Your task to perform on an android device: turn off priority inbox in the gmail app Image 0: 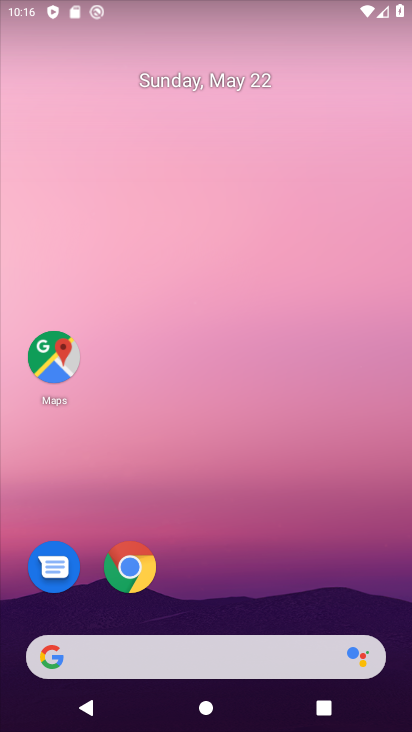
Step 0: drag from (400, 625) to (336, 52)
Your task to perform on an android device: turn off priority inbox in the gmail app Image 1: 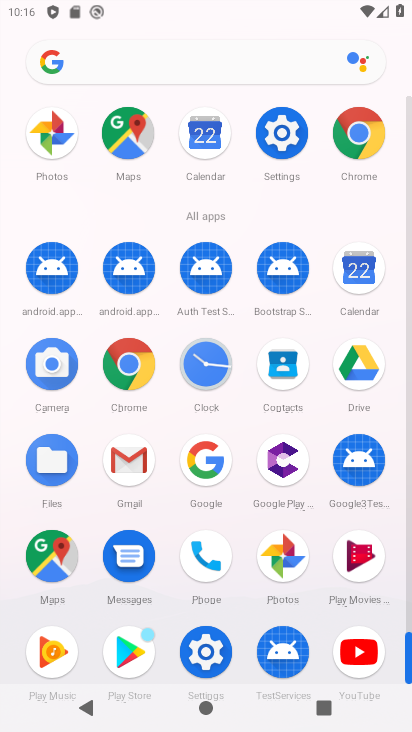
Step 1: click (409, 619)
Your task to perform on an android device: turn off priority inbox in the gmail app Image 2: 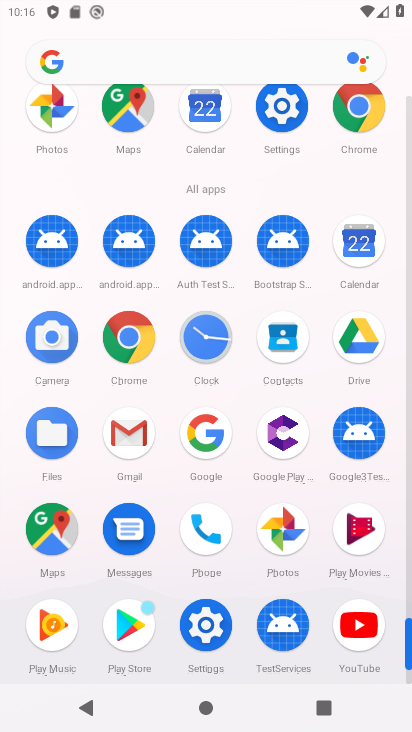
Step 2: click (128, 433)
Your task to perform on an android device: turn off priority inbox in the gmail app Image 3: 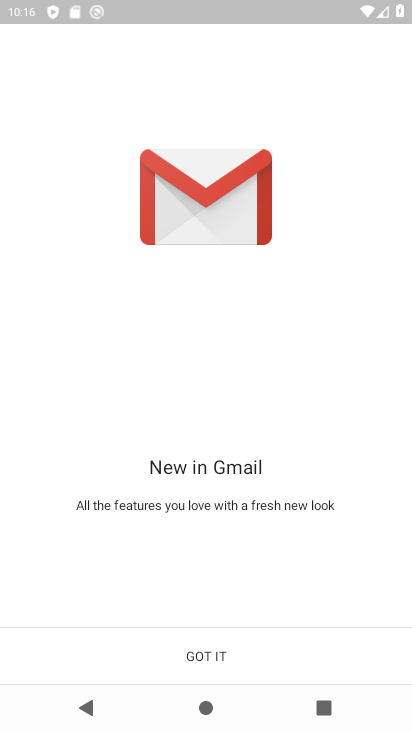
Step 3: click (194, 651)
Your task to perform on an android device: turn off priority inbox in the gmail app Image 4: 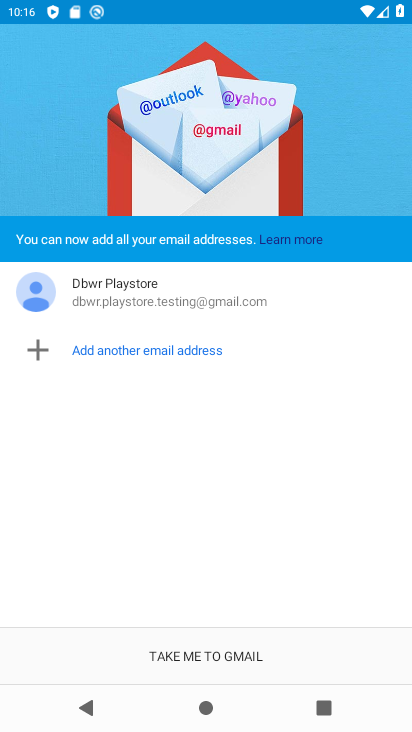
Step 4: click (194, 651)
Your task to perform on an android device: turn off priority inbox in the gmail app Image 5: 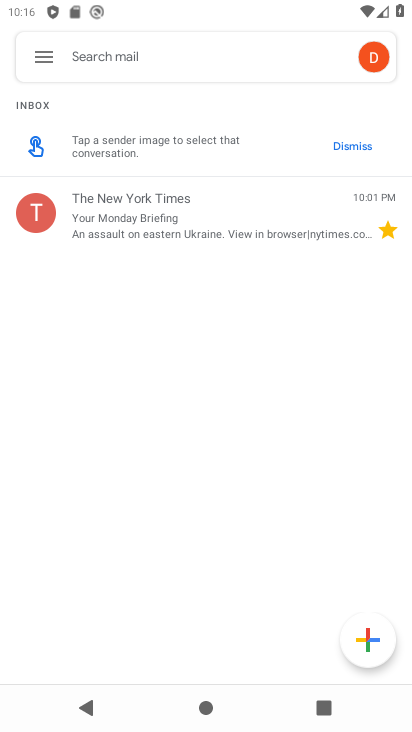
Step 5: click (46, 52)
Your task to perform on an android device: turn off priority inbox in the gmail app Image 6: 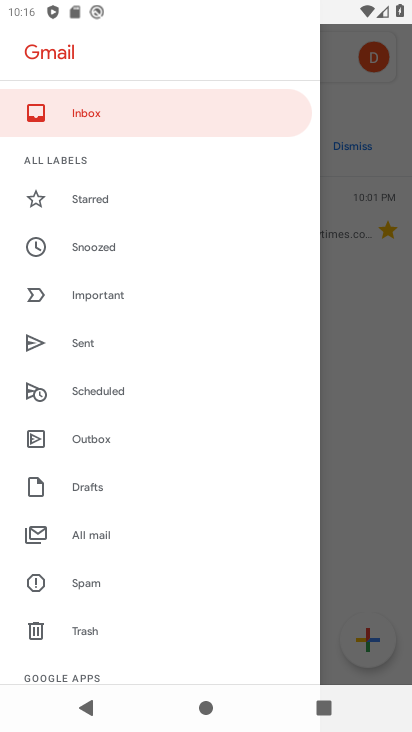
Step 6: drag from (188, 658) to (228, 211)
Your task to perform on an android device: turn off priority inbox in the gmail app Image 7: 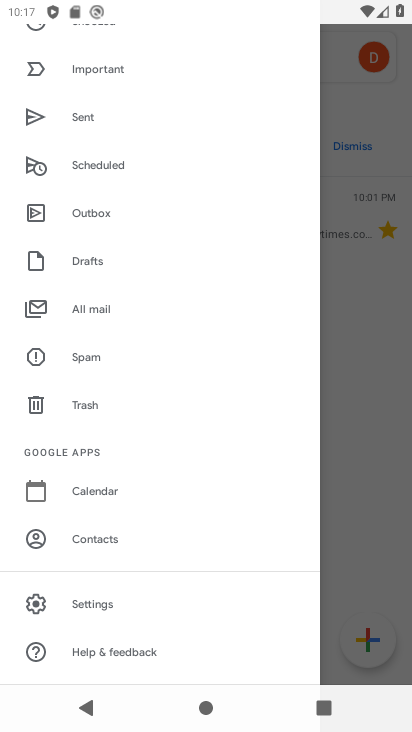
Step 7: click (90, 600)
Your task to perform on an android device: turn off priority inbox in the gmail app Image 8: 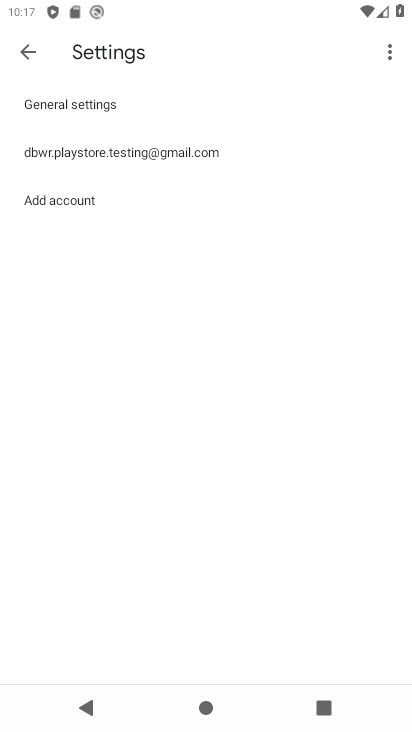
Step 8: click (101, 144)
Your task to perform on an android device: turn off priority inbox in the gmail app Image 9: 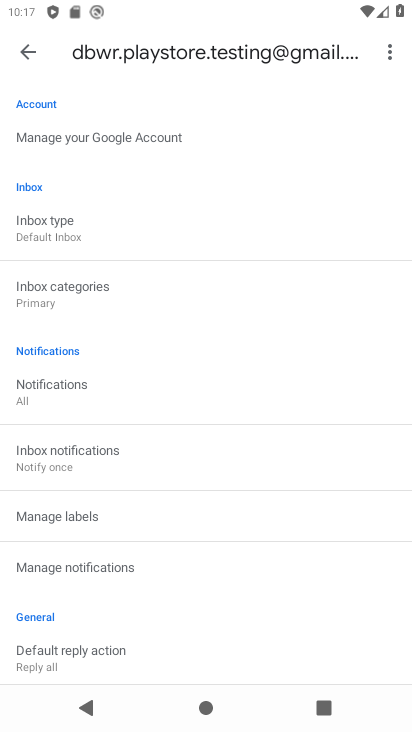
Step 9: drag from (199, 634) to (210, 168)
Your task to perform on an android device: turn off priority inbox in the gmail app Image 10: 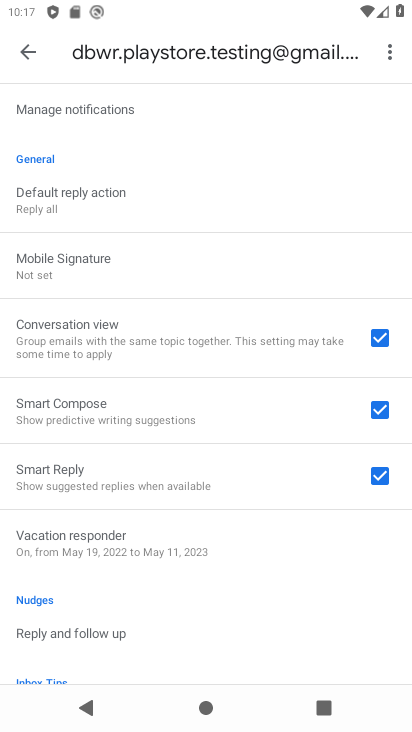
Step 10: drag from (243, 298) to (259, 116)
Your task to perform on an android device: turn off priority inbox in the gmail app Image 11: 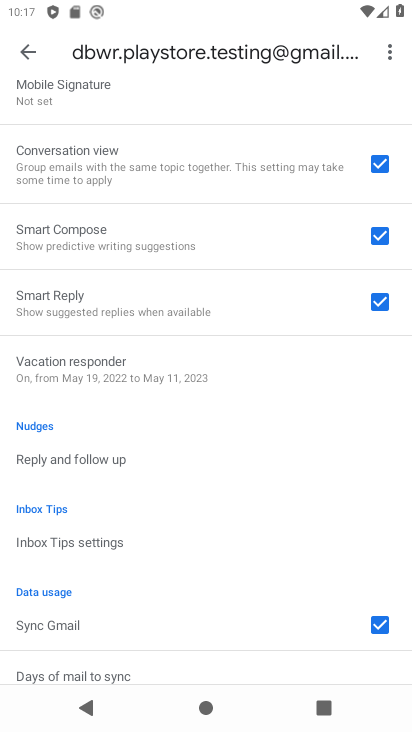
Step 11: drag from (237, 247) to (223, 572)
Your task to perform on an android device: turn off priority inbox in the gmail app Image 12: 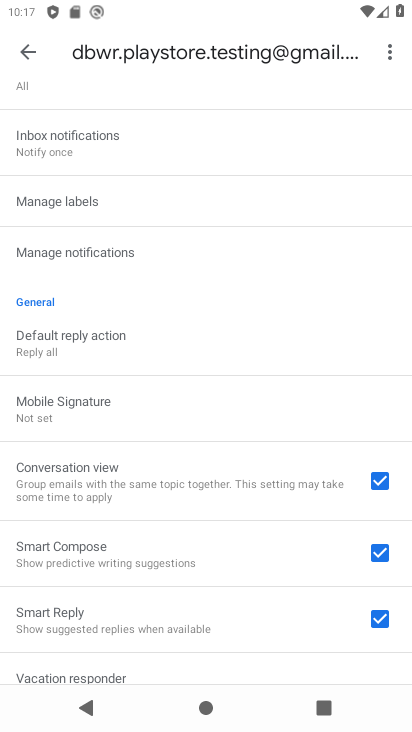
Step 12: drag from (208, 238) to (218, 532)
Your task to perform on an android device: turn off priority inbox in the gmail app Image 13: 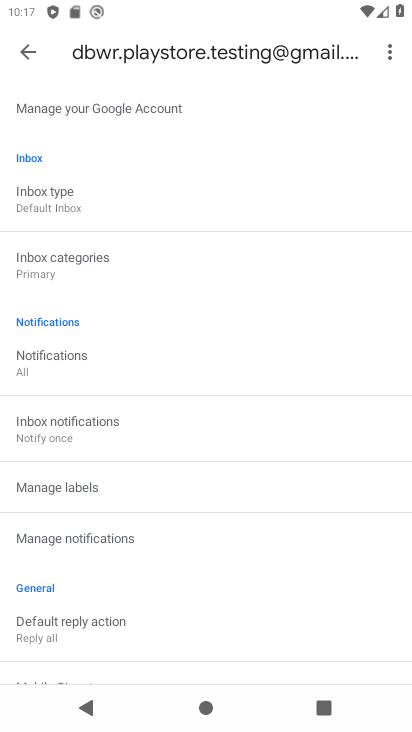
Step 13: drag from (142, 246) to (162, 564)
Your task to perform on an android device: turn off priority inbox in the gmail app Image 14: 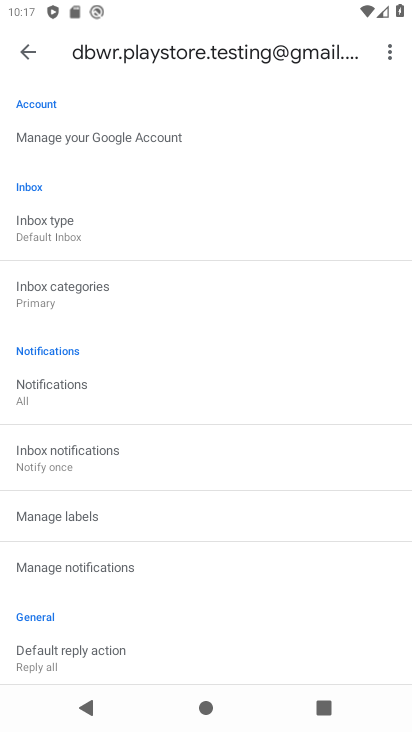
Step 14: click (68, 237)
Your task to perform on an android device: turn off priority inbox in the gmail app Image 15: 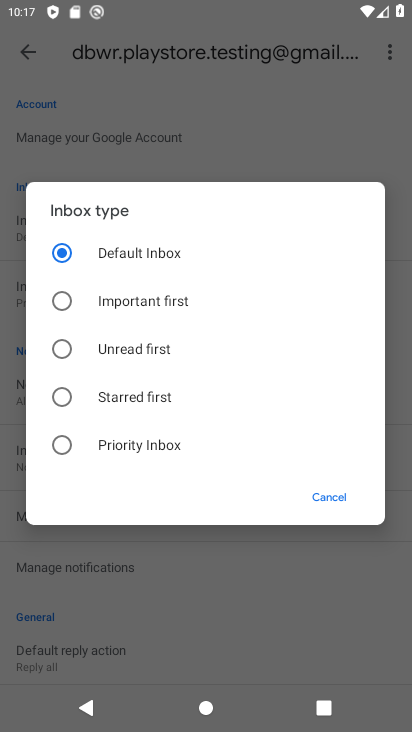
Step 15: task complete